Your task to perform on an android device: find snoozed emails in the gmail app Image 0: 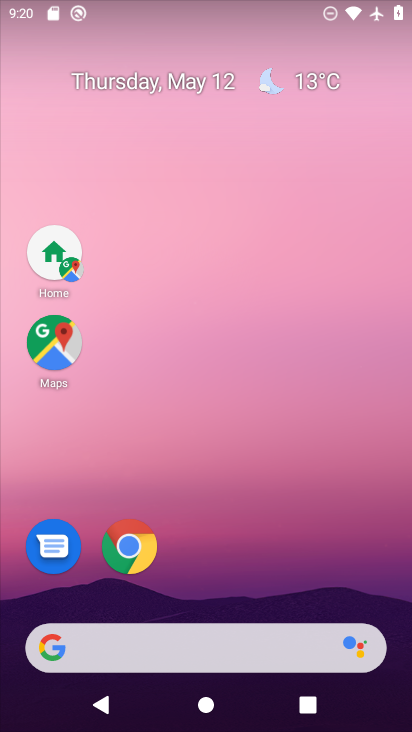
Step 0: drag from (178, 653) to (274, 172)
Your task to perform on an android device: find snoozed emails in the gmail app Image 1: 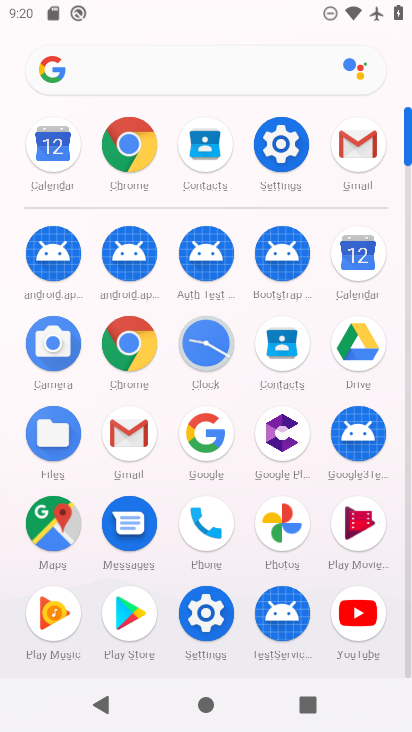
Step 1: click (349, 149)
Your task to perform on an android device: find snoozed emails in the gmail app Image 2: 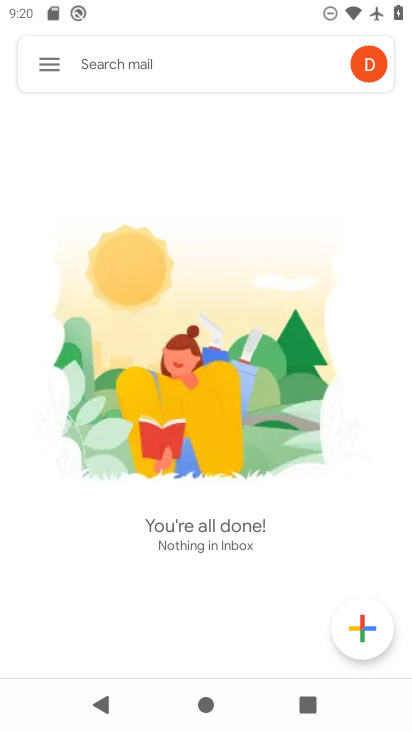
Step 2: click (45, 63)
Your task to perform on an android device: find snoozed emails in the gmail app Image 3: 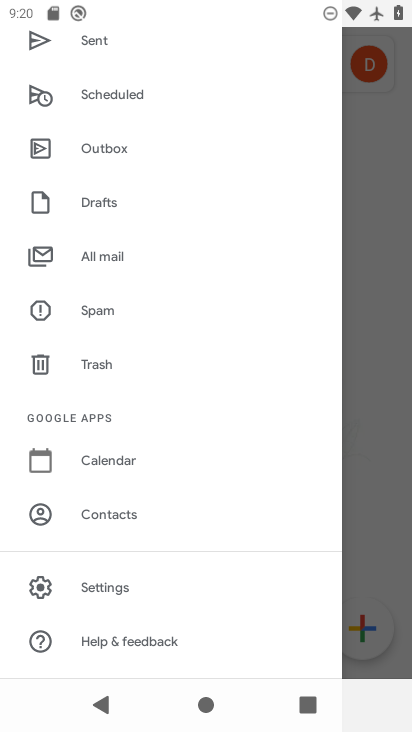
Step 3: drag from (206, 150) to (194, 500)
Your task to perform on an android device: find snoozed emails in the gmail app Image 4: 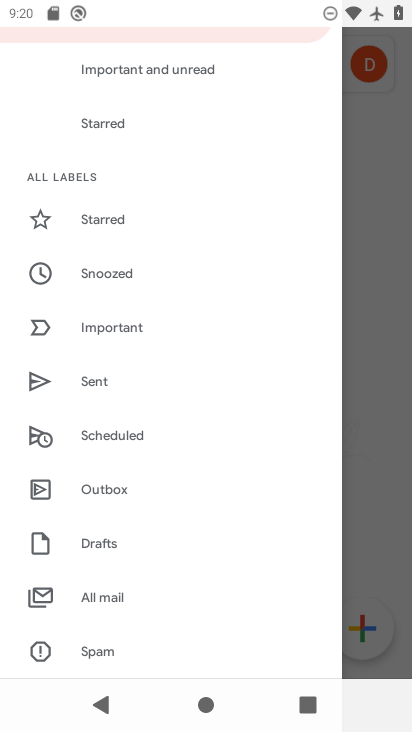
Step 4: click (123, 275)
Your task to perform on an android device: find snoozed emails in the gmail app Image 5: 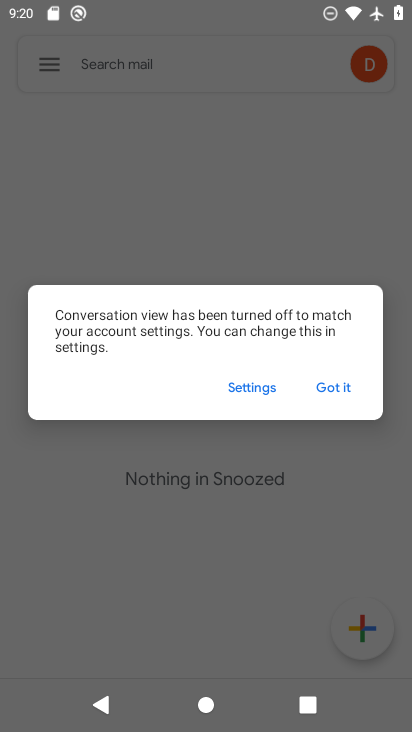
Step 5: click (348, 388)
Your task to perform on an android device: find snoozed emails in the gmail app Image 6: 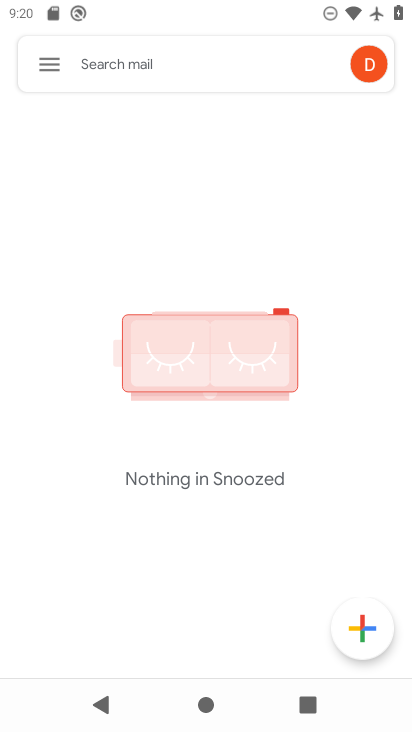
Step 6: task complete